Your task to perform on an android device: Open battery settings Image 0: 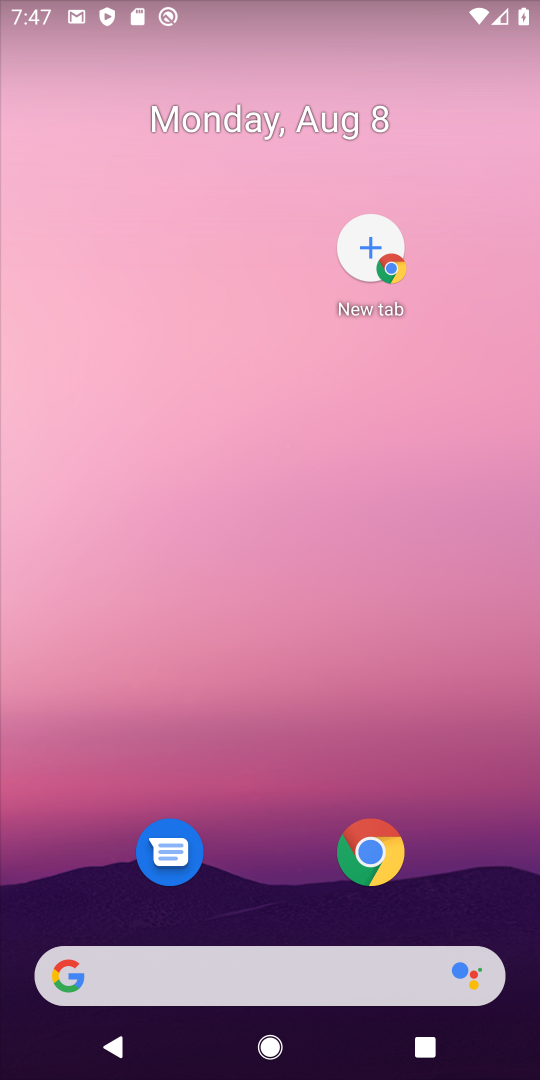
Step 0: click (380, 440)
Your task to perform on an android device: Open battery settings Image 1: 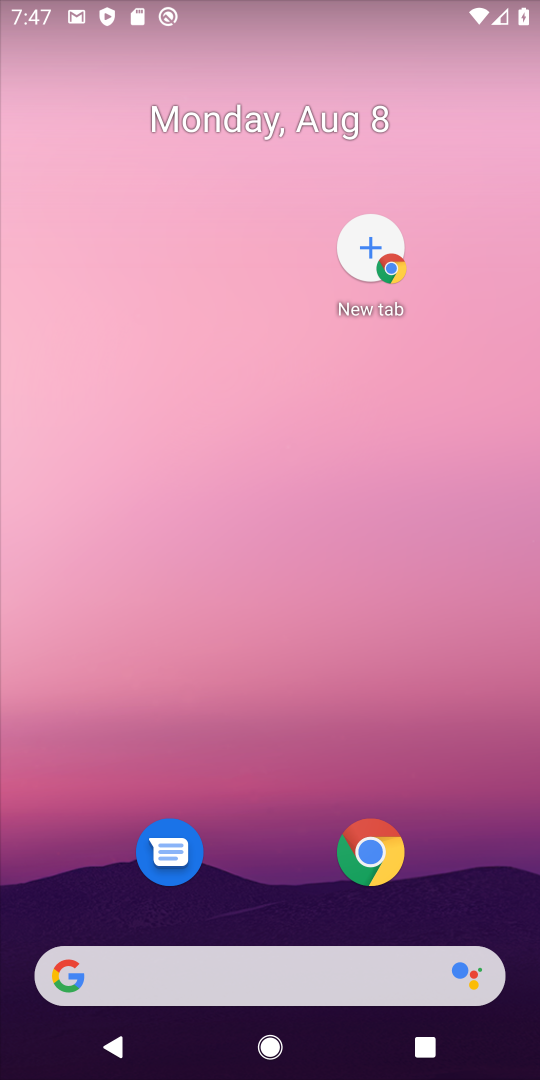
Step 1: click (292, 268)
Your task to perform on an android device: Open battery settings Image 2: 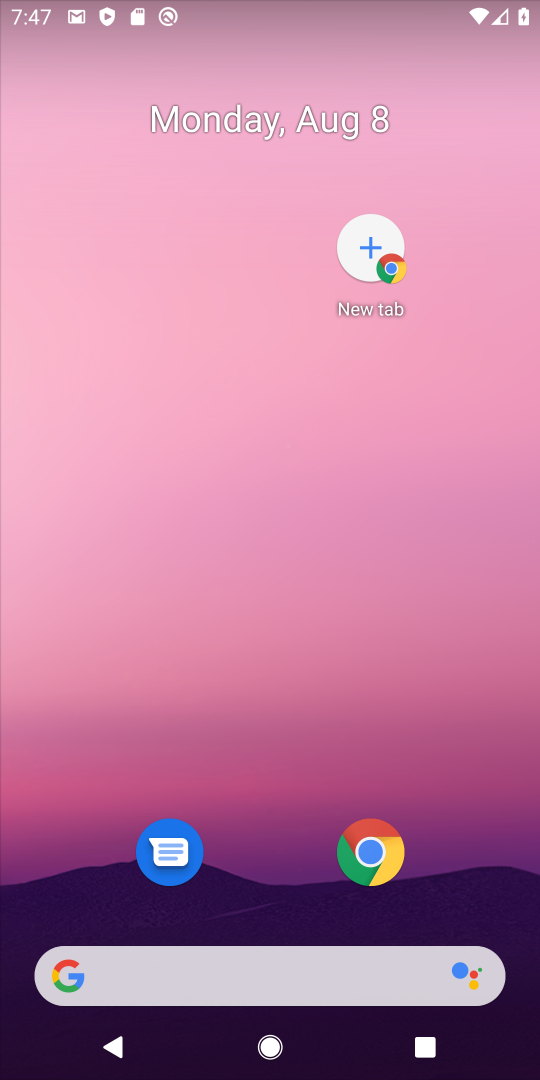
Step 2: drag from (281, 908) to (294, 209)
Your task to perform on an android device: Open battery settings Image 3: 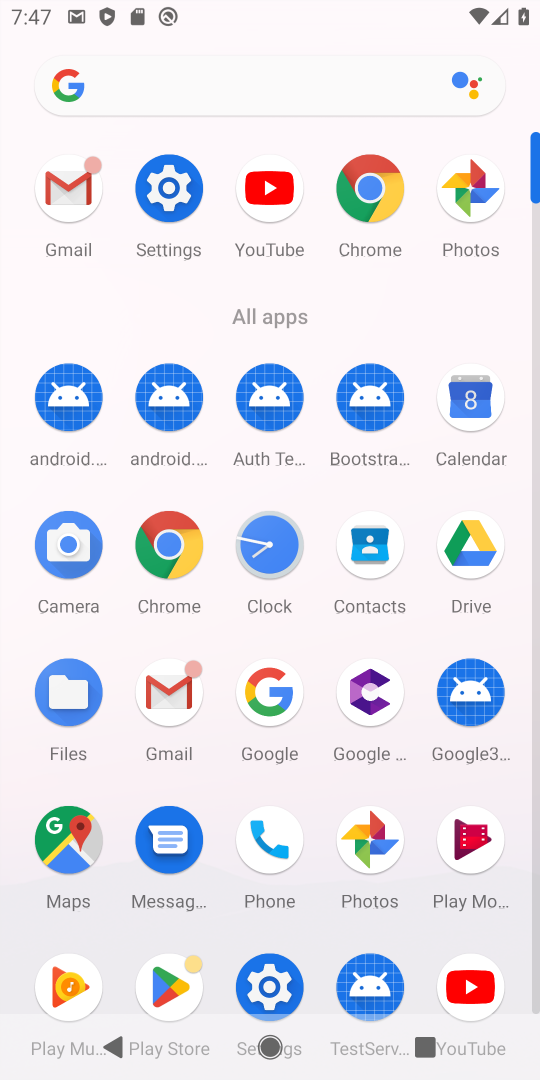
Step 3: click (273, 999)
Your task to perform on an android device: Open battery settings Image 4: 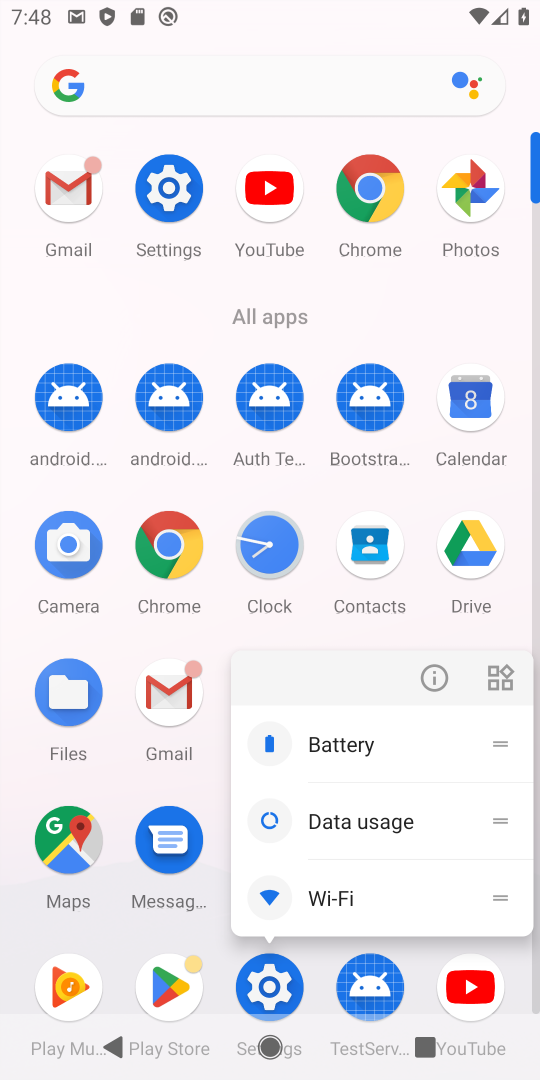
Step 4: click (272, 993)
Your task to perform on an android device: Open battery settings Image 5: 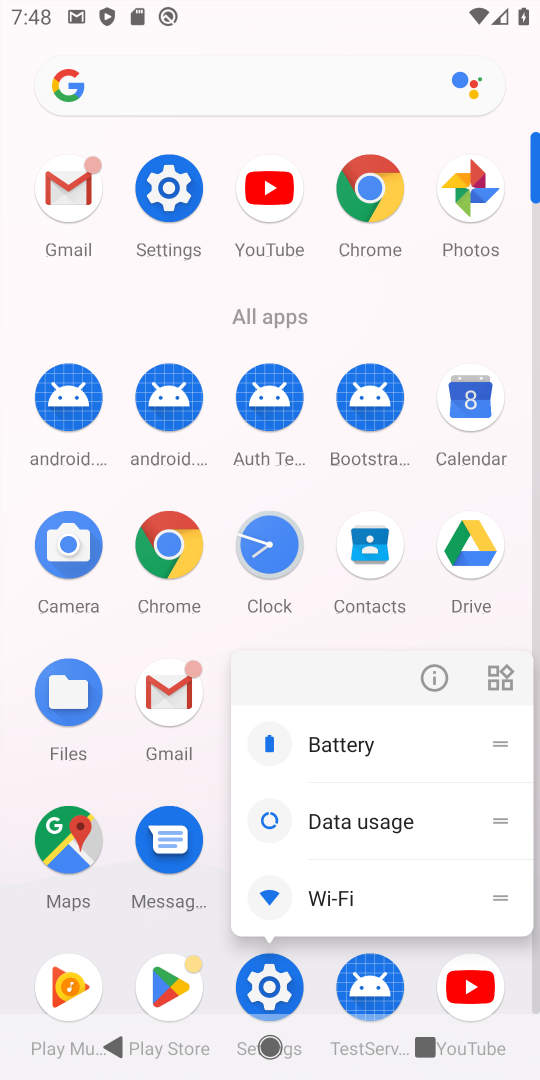
Step 5: click (278, 992)
Your task to perform on an android device: Open battery settings Image 6: 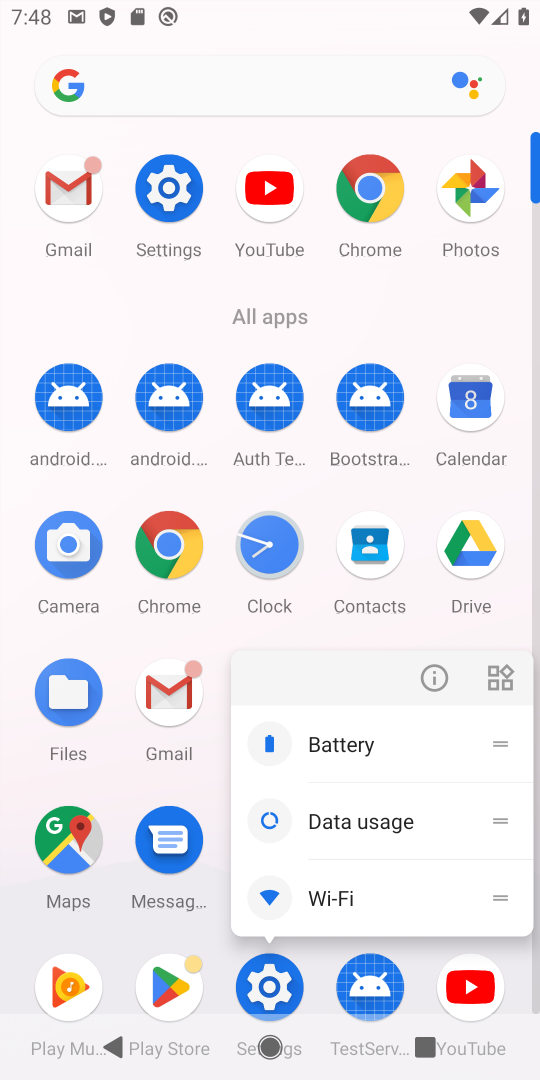
Step 6: click (278, 992)
Your task to perform on an android device: Open battery settings Image 7: 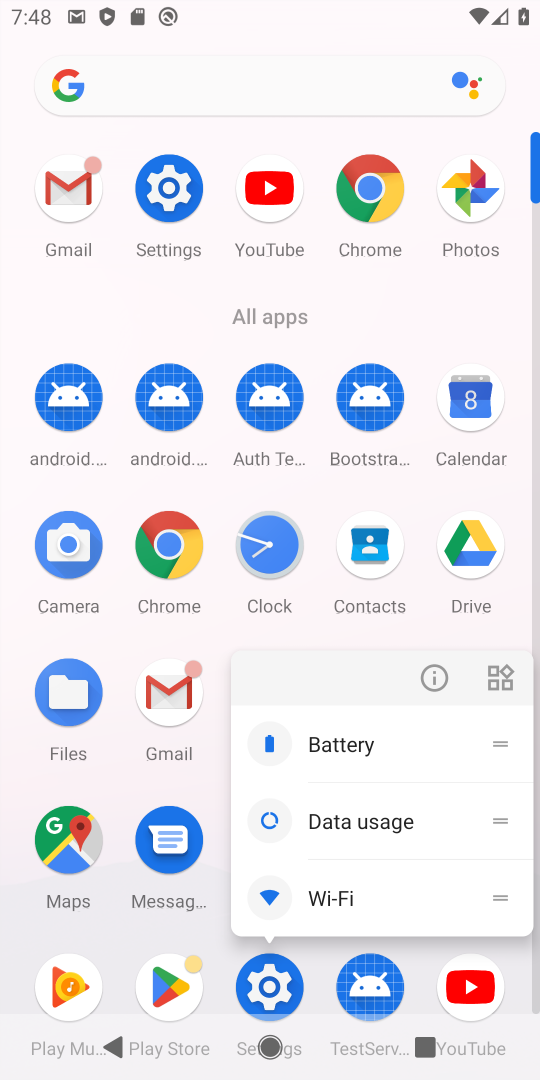
Step 7: click (278, 992)
Your task to perform on an android device: Open battery settings Image 8: 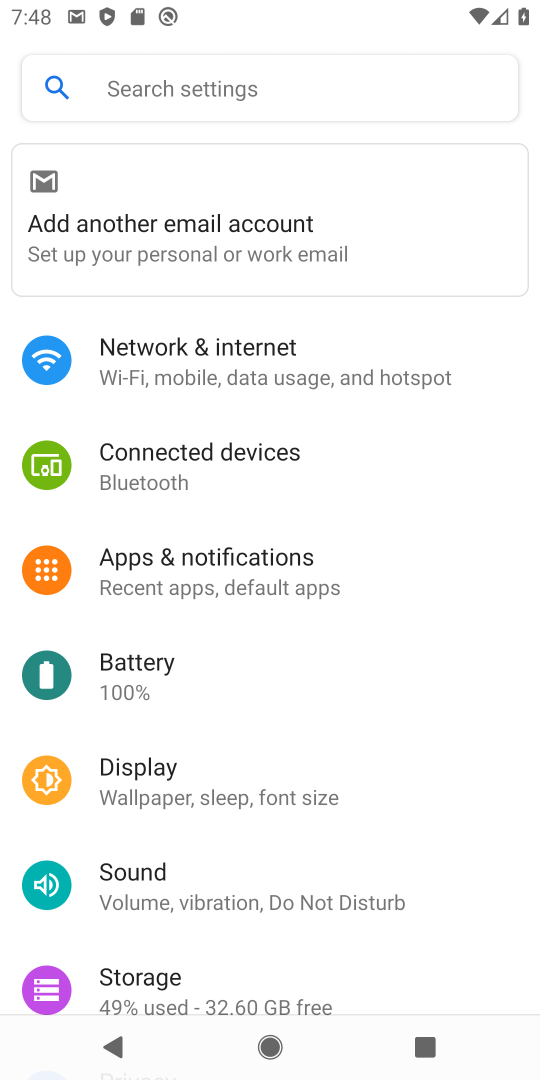
Step 8: click (163, 675)
Your task to perform on an android device: Open battery settings Image 9: 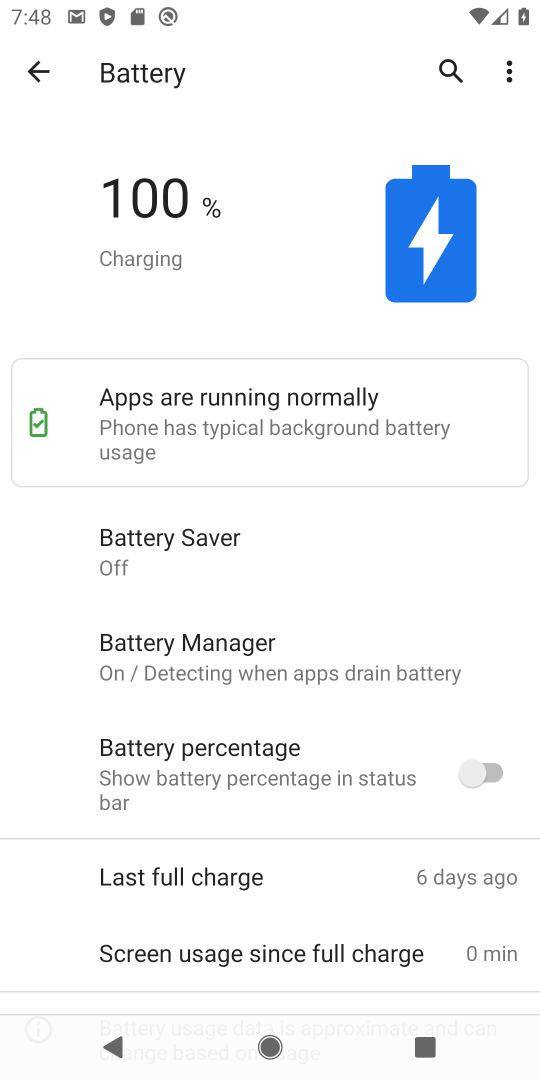
Step 9: task complete